Your task to perform on an android device: open sync settings in chrome Image 0: 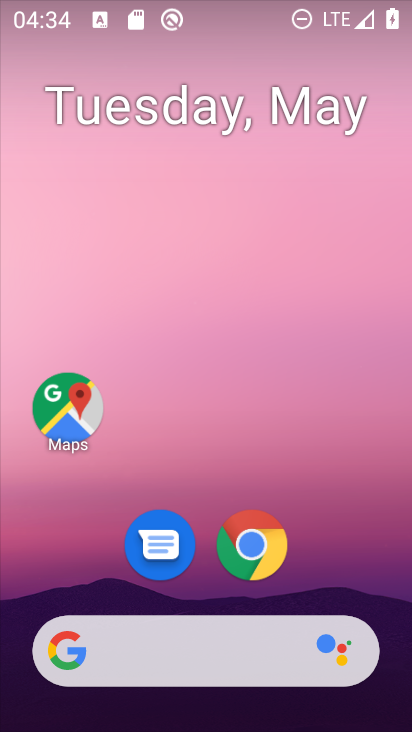
Step 0: click (250, 541)
Your task to perform on an android device: open sync settings in chrome Image 1: 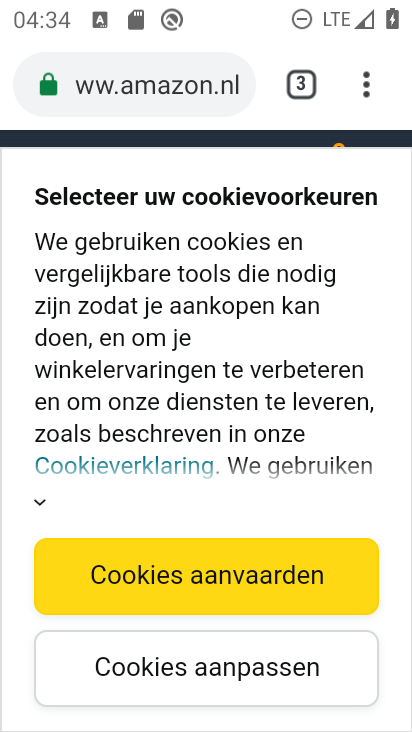
Step 1: click (365, 84)
Your task to perform on an android device: open sync settings in chrome Image 2: 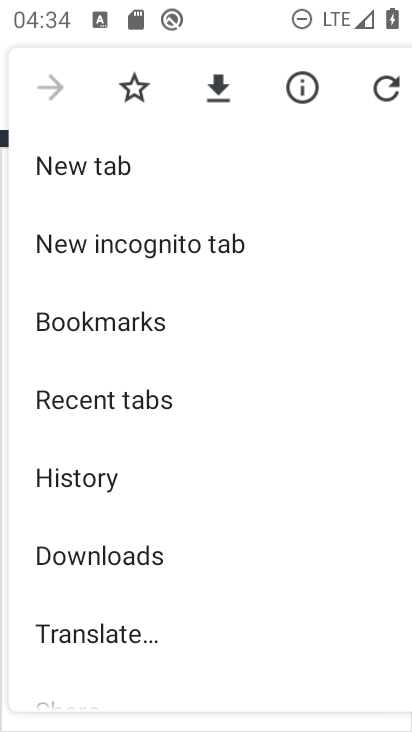
Step 2: drag from (183, 610) to (263, 168)
Your task to perform on an android device: open sync settings in chrome Image 3: 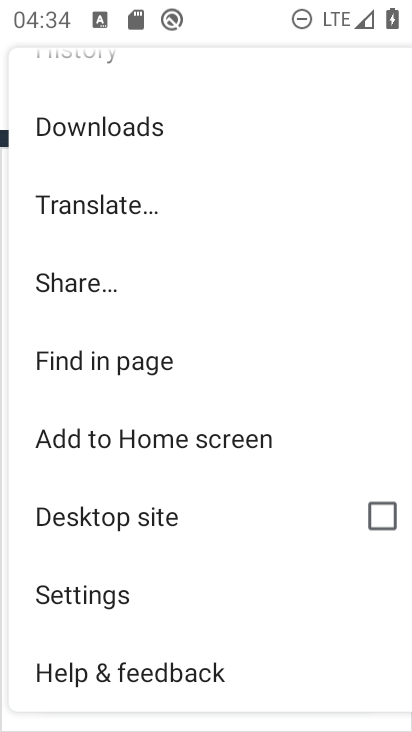
Step 3: click (72, 592)
Your task to perform on an android device: open sync settings in chrome Image 4: 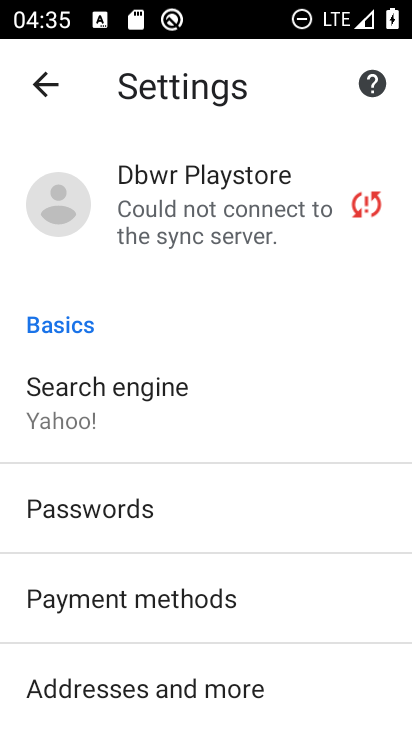
Step 4: click (181, 204)
Your task to perform on an android device: open sync settings in chrome Image 5: 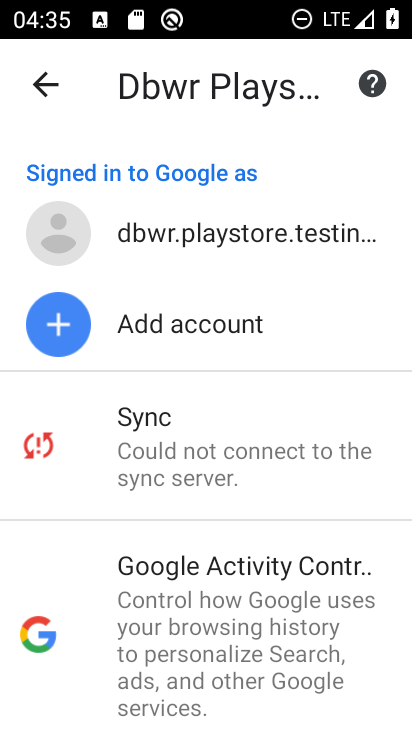
Step 5: click (150, 467)
Your task to perform on an android device: open sync settings in chrome Image 6: 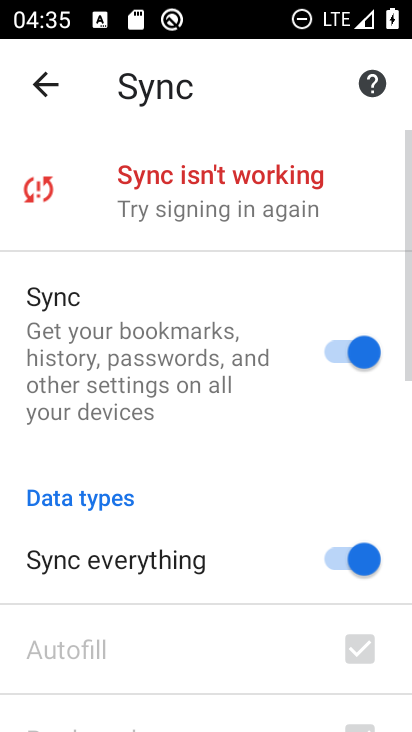
Step 6: task complete